Your task to perform on an android device: Do I have any events today? Image 0: 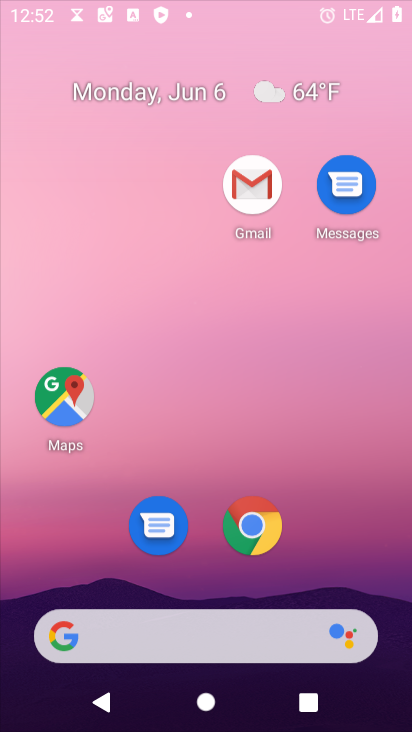
Step 0: press home button
Your task to perform on an android device: Do I have any events today? Image 1: 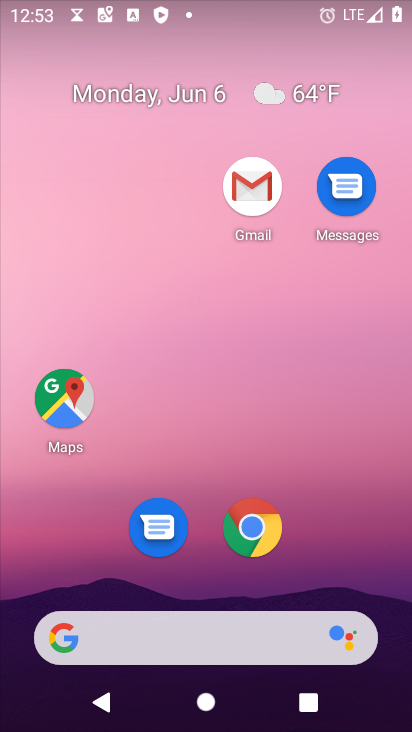
Step 1: drag from (319, 517) to (310, 58)
Your task to perform on an android device: Do I have any events today? Image 2: 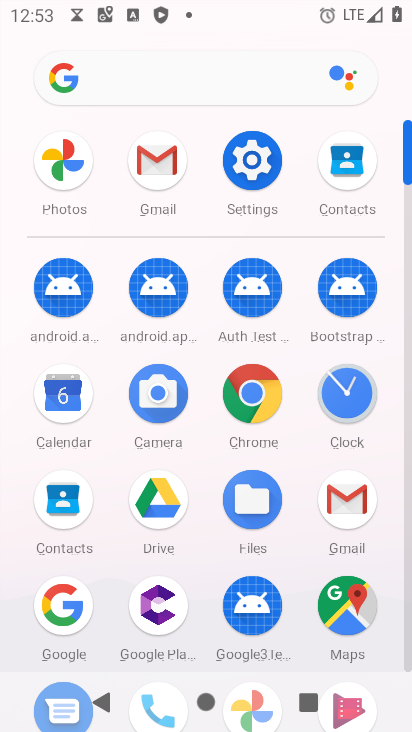
Step 2: click (54, 397)
Your task to perform on an android device: Do I have any events today? Image 3: 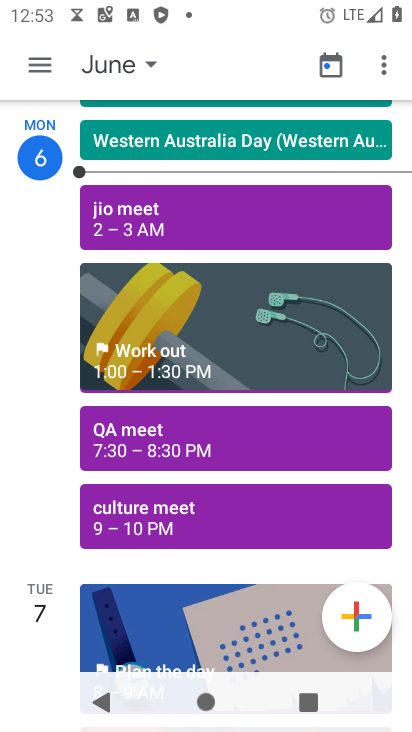
Step 3: click (51, 158)
Your task to perform on an android device: Do I have any events today? Image 4: 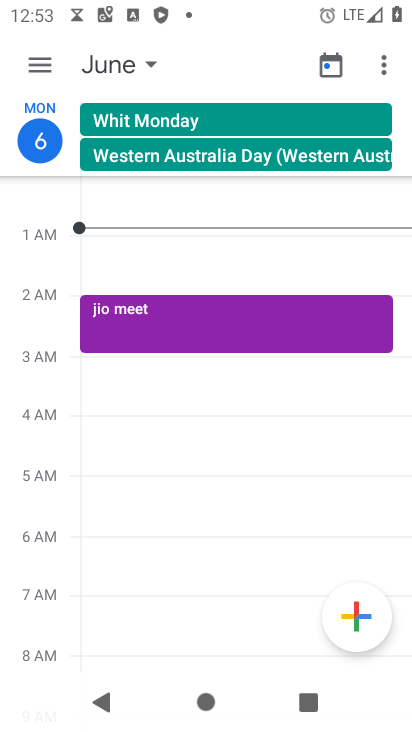
Step 4: task complete